Your task to perform on an android device: uninstall "DoorDash - Food Delivery" Image 0: 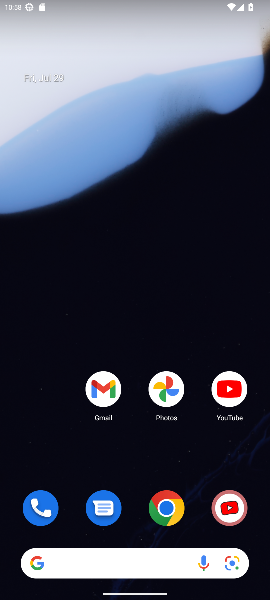
Step 0: drag from (158, 565) to (178, 12)
Your task to perform on an android device: uninstall "DoorDash - Food Delivery" Image 1: 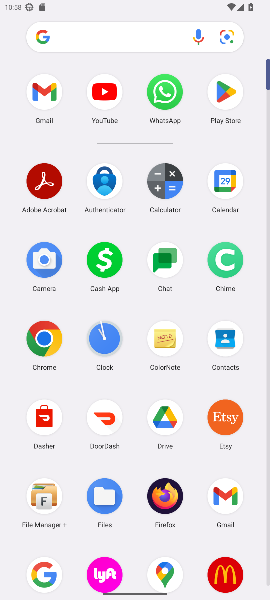
Step 1: click (223, 87)
Your task to perform on an android device: uninstall "DoorDash - Food Delivery" Image 2: 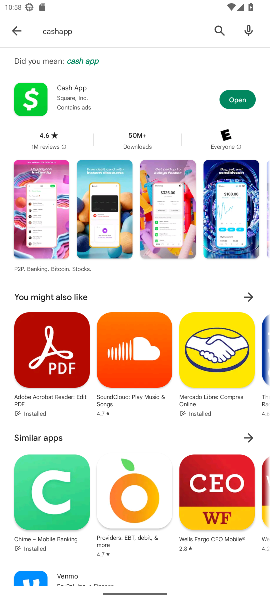
Step 2: click (207, 29)
Your task to perform on an android device: uninstall "DoorDash - Food Delivery" Image 3: 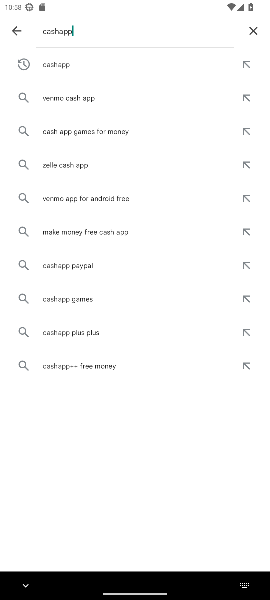
Step 3: click (253, 29)
Your task to perform on an android device: uninstall "DoorDash - Food Delivery" Image 4: 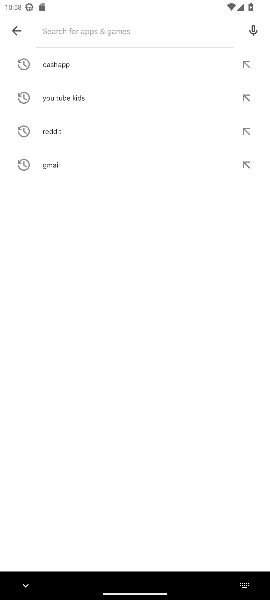
Step 4: type "dooedash- food delivery"
Your task to perform on an android device: uninstall "DoorDash - Food Delivery" Image 5: 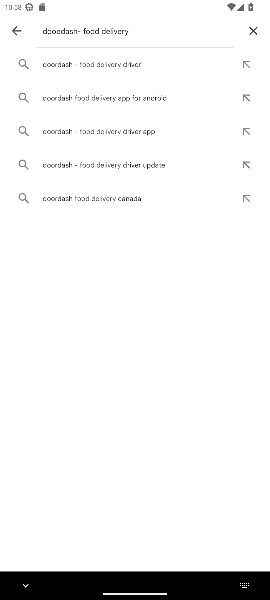
Step 5: click (149, 60)
Your task to perform on an android device: uninstall "DoorDash - Food Delivery" Image 6: 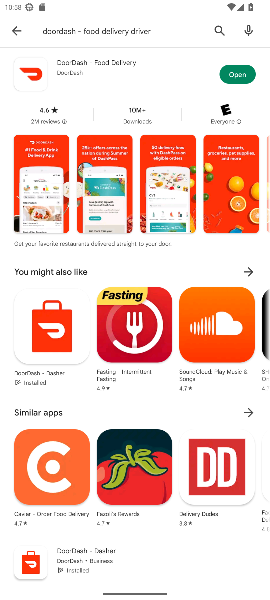
Step 6: task complete